Your task to perform on an android device: Check the news Image 0: 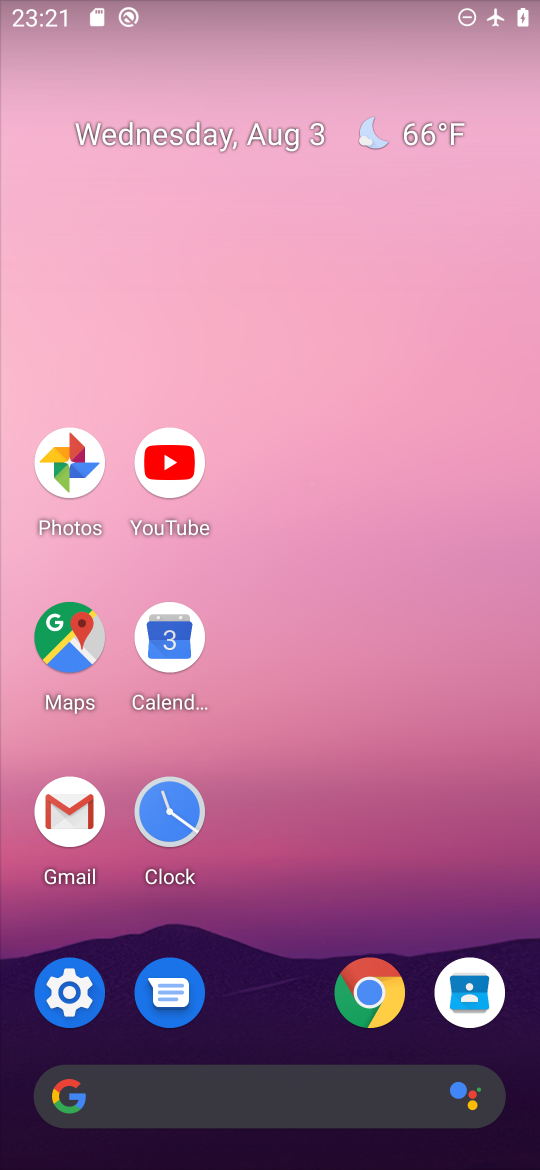
Step 0: click (70, 1093)
Your task to perform on an android device: Check the news Image 1: 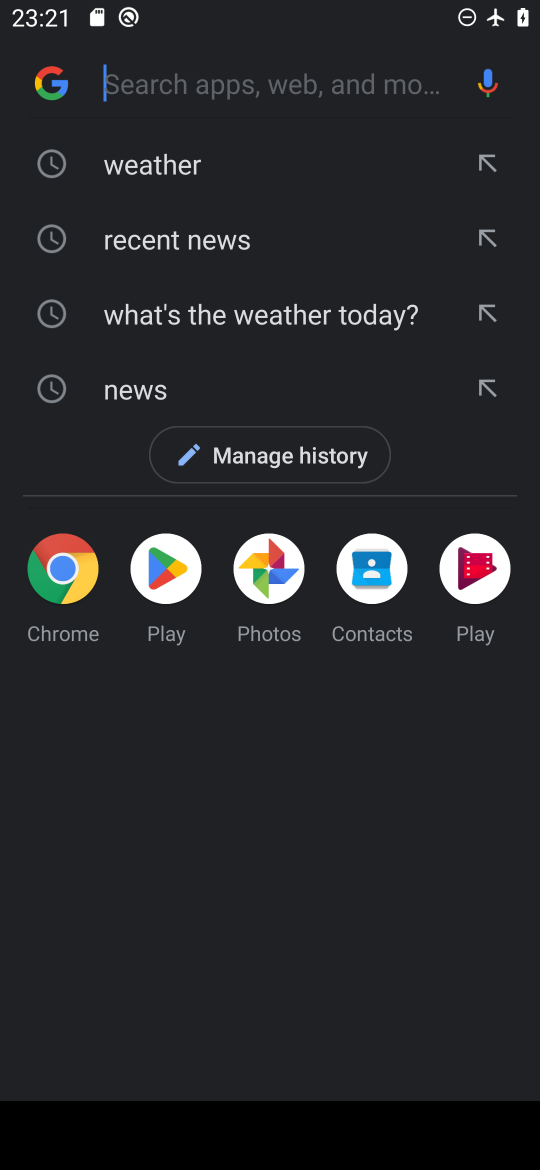
Step 1: click (50, 93)
Your task to perform on an android device: Check the news Image 2: 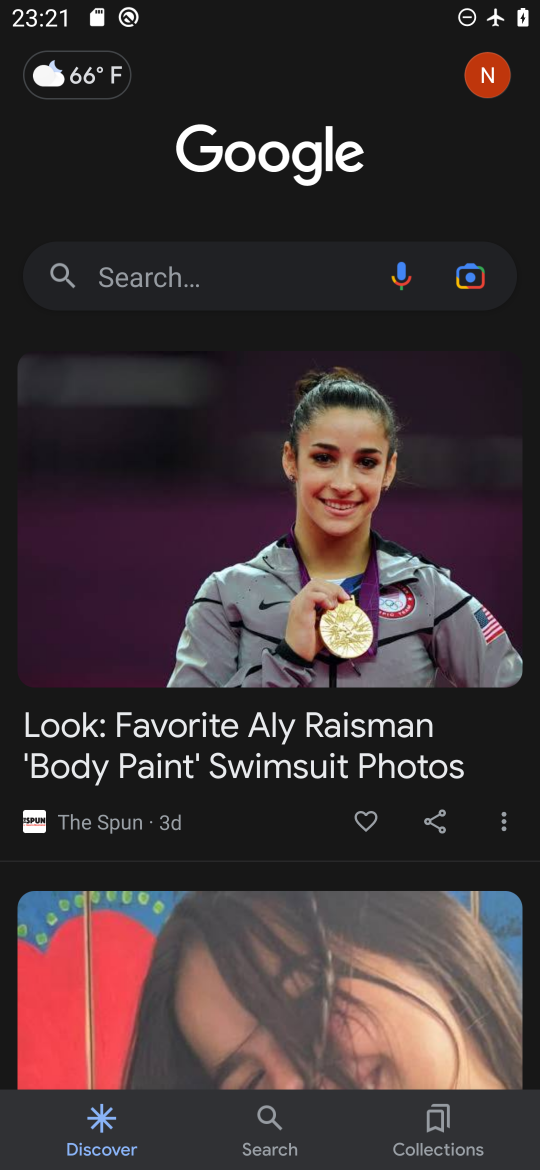
Step 2: task complete